Your task to perform on an android device: Show me popular games on the Play Store Image 0: 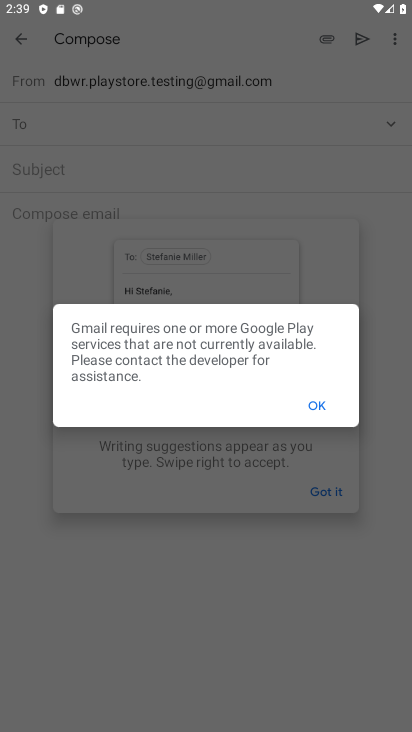
Step 0: press home button
Your task to perform on an android device: Show me popular games on the Play Store Image 1: 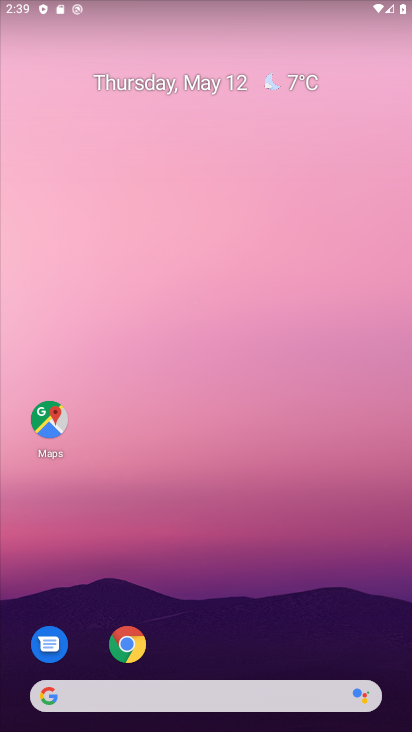
Step 1: drag from (176, 676) to (243, 159)
Your task to perform on an android device: Show me popular games on the Play Store Image 2: 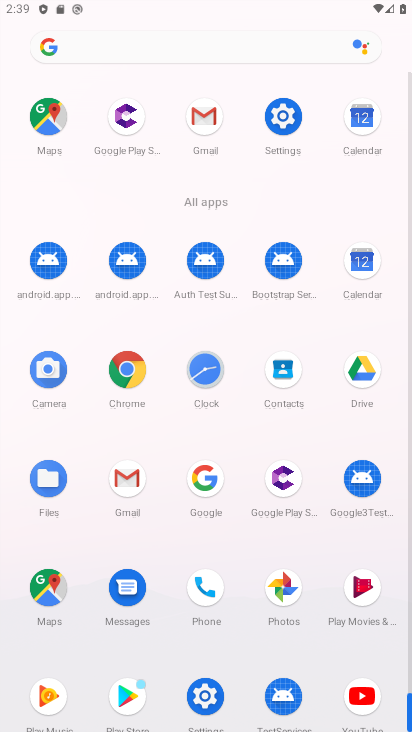
Step 2: drag from (170, 647) to (206, 393)
Your task to perform on an android device: Show me popular games on the Play Store Image 3: 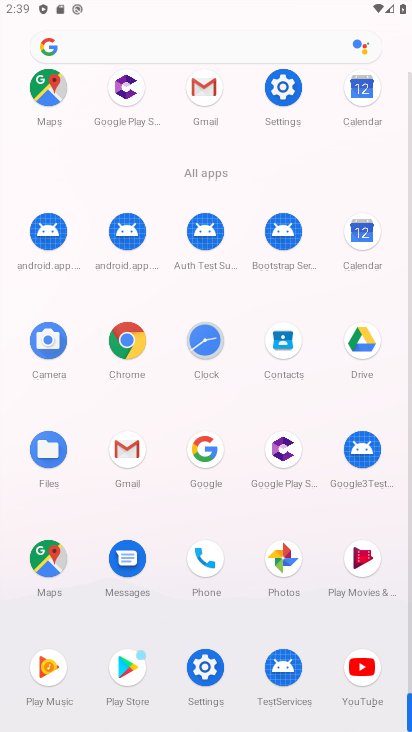
Step 3: click (130, 678)
Your task to perform on an android device: Show me popular games on the Play Store Image 4: 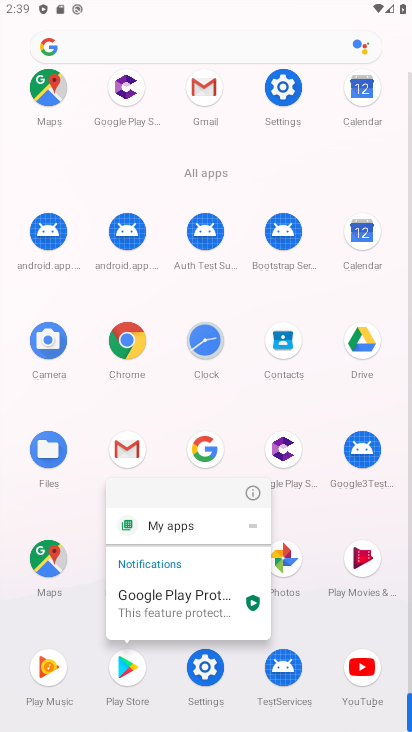
Step 4: click (130, 677)
Your task to perform on an android device: Show me popular games on the Play Store Image 5: 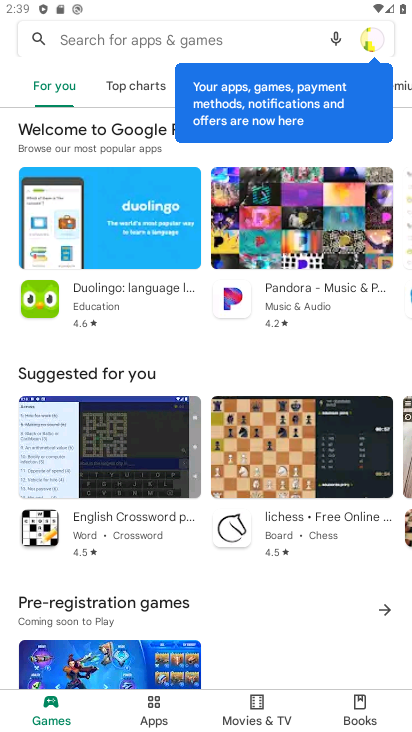
Step 5: drag from (202, 647) to (299, 169)
Your task to perform on an android device: Show me popular games on the Play Store Image 6: 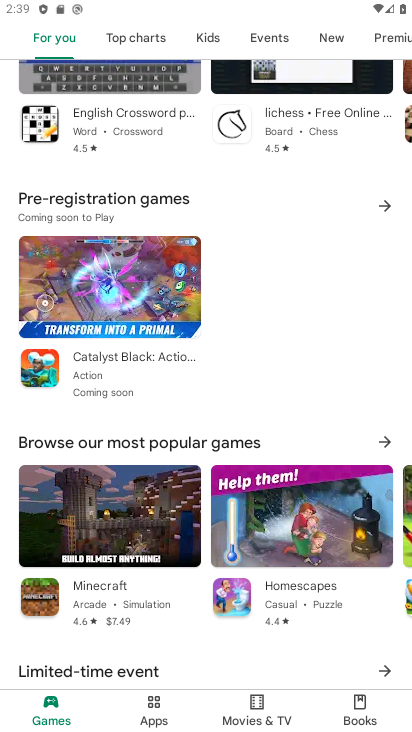
Step 6: click (390, 431)
Your task to perform on an android device: Show me popular games on the Play Store Image 7: 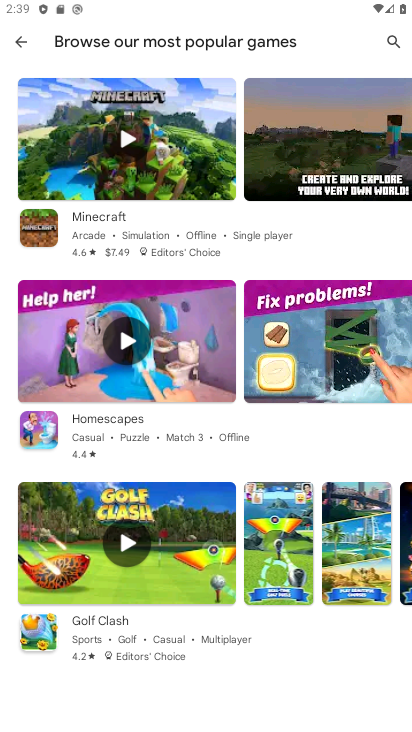
Step 7: task complete